Your task to perform on an android device: choose inbox layout in the gmail app Image 0: 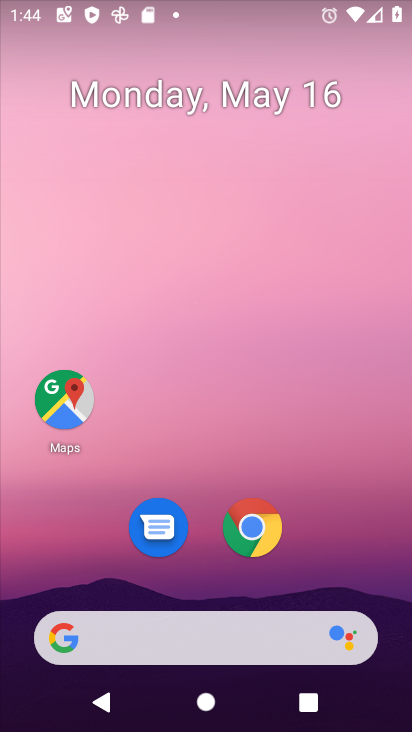
Step 0: drag from (334, 589) to (210, 161)
Your task to perform on an android device: choose inbox layout in the gmail app Image 1: 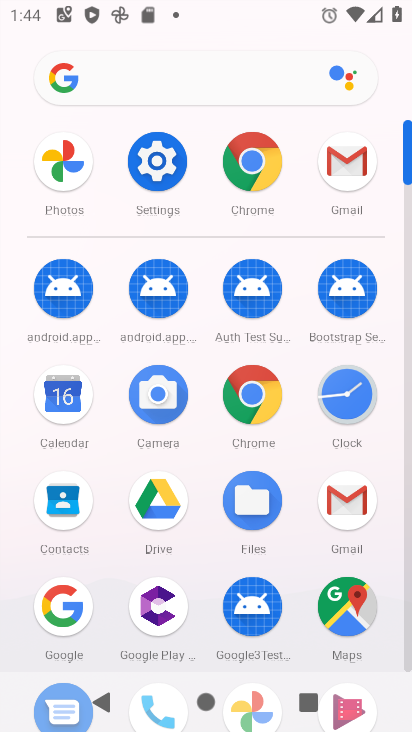
Step 1: click (358, 511)
Your task to perform on an android device: choose inbox layout in the gmail app Image 2: 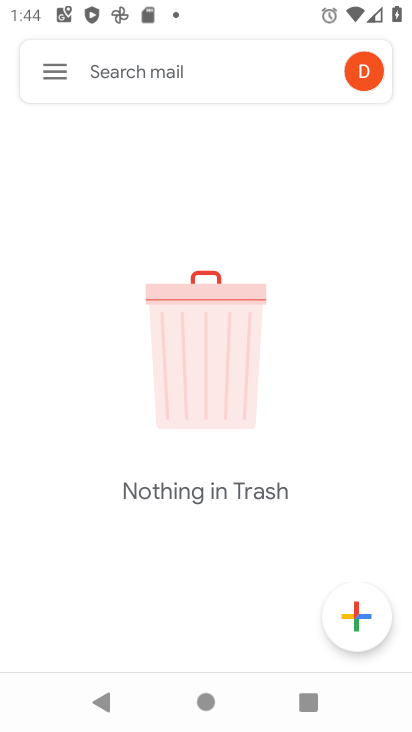
Step 2: click (43, 67)
Your task to perform on an android device: choose inbox layout in the gmail app Image 3: 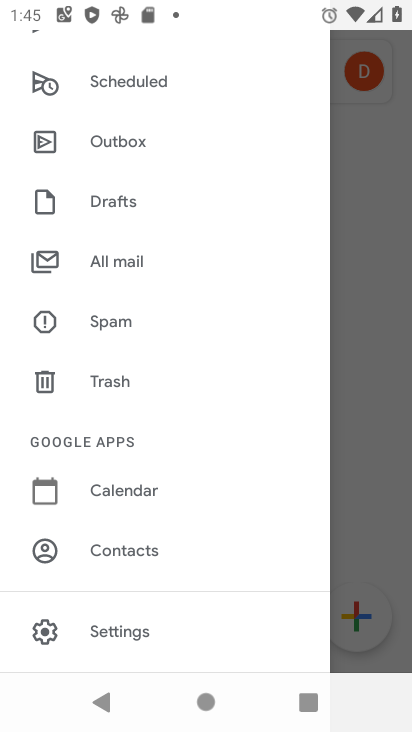
Step 3: click (172, 619)
Your task to perform on an android device: choose inbox layout in the gmail app Image 4: 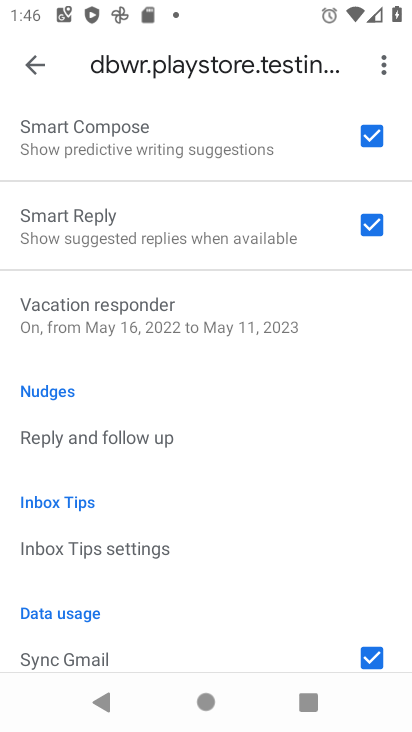
Step 4: task complete